Your task to perform on an android device: remove spam from my inbox in the gmail app Image 0: 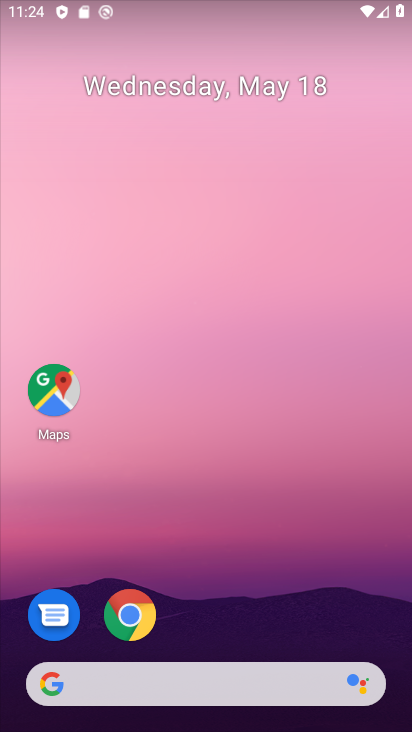
Step 0: press home button
Your task to perform on an android device: remove spam from my inbox in the gmail app Image 1: 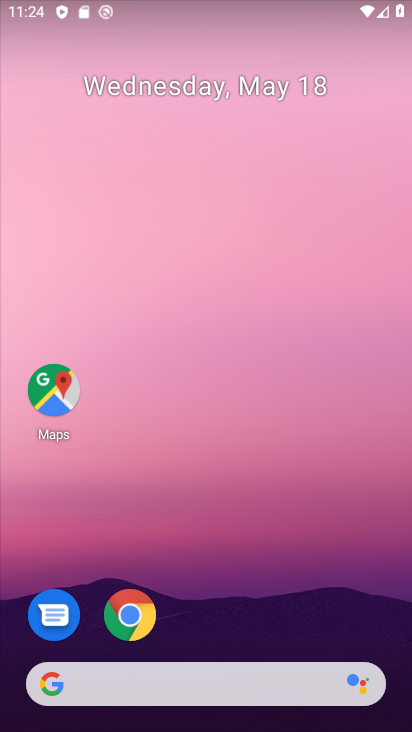
Step 1: drag from (103, 434) to (294, 184)
Your task to perform on an android device: remove spam from my inbox in the gmail app Image 2: 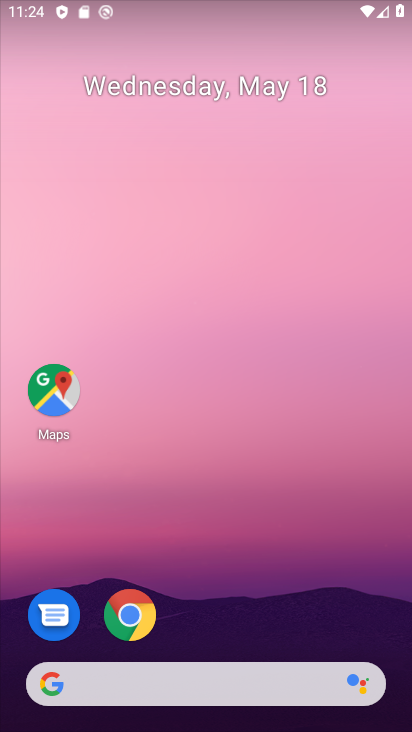
Step 2: drag from (33, 537) to (252, 9)
Your task to perform on an android device: remove spam from my inbox in the gmail app Image 3: 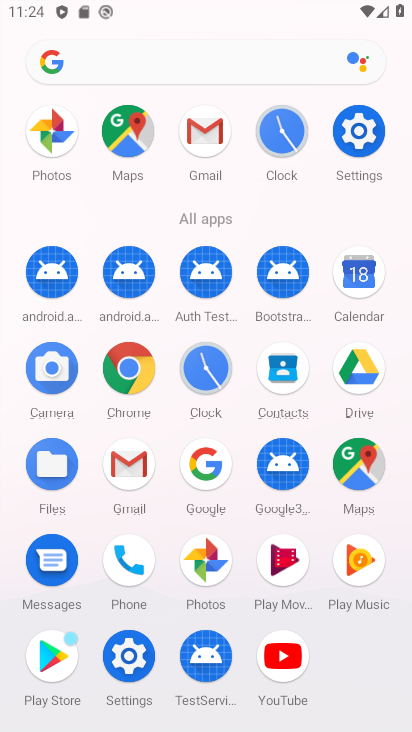
Step 3: click (210, 140)
Your task to perform on an android device: remove spam from my inbox in the gmail app Image 4: 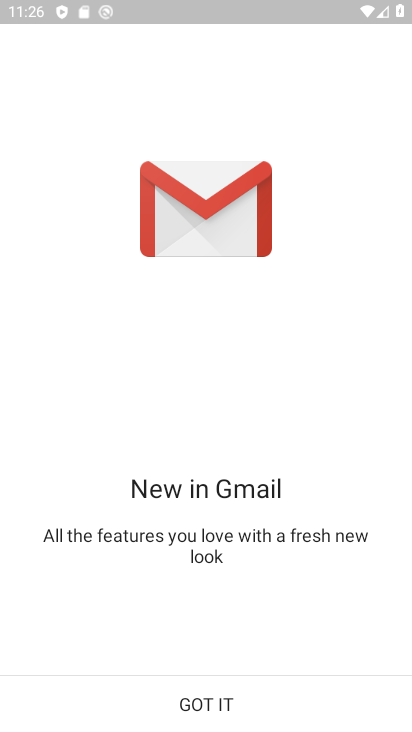
Step 4: click (268, 704)
Your task to perform on an android device: remove spam from my inbox in the gmail app Image 5: 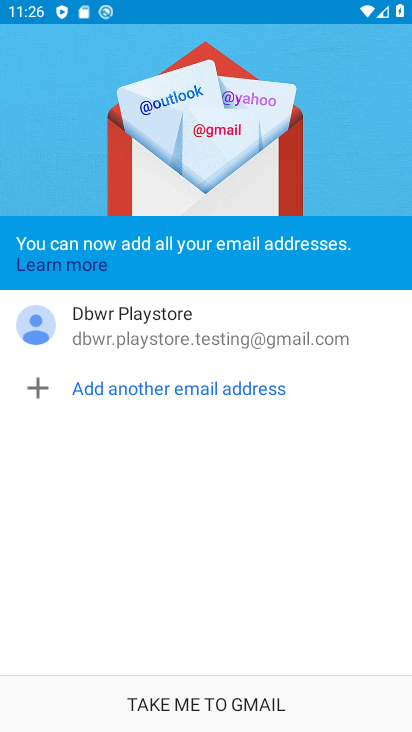
Step 5: click (218, 708)
Your task to perform on an android device: remove spam from my inbox in the gmail app Image 6: 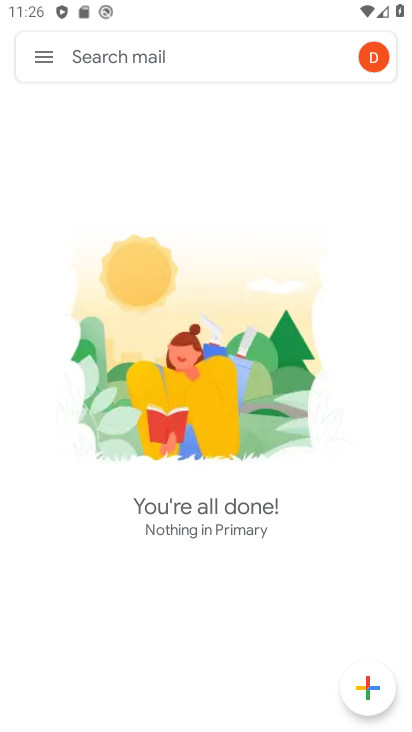
Step 6: press home button
Your task to perform on an android device: remove spam from my inbox in the gmail app Image 7: 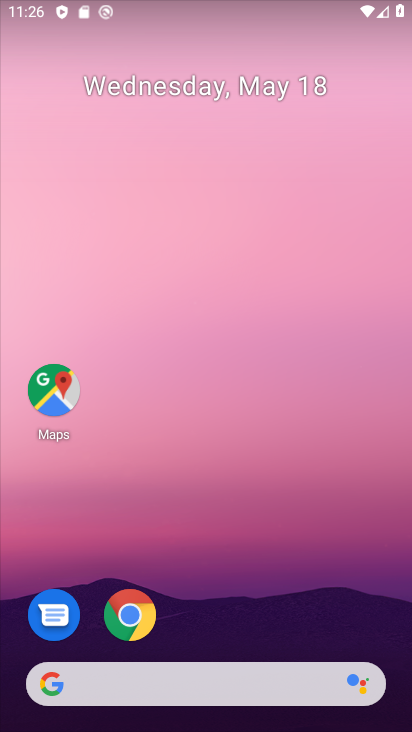
Step 7: drag from (43, 337) to (140, 188)
Your task to perform on an android device: remove spam from my inbox in the gmail app Image 8: 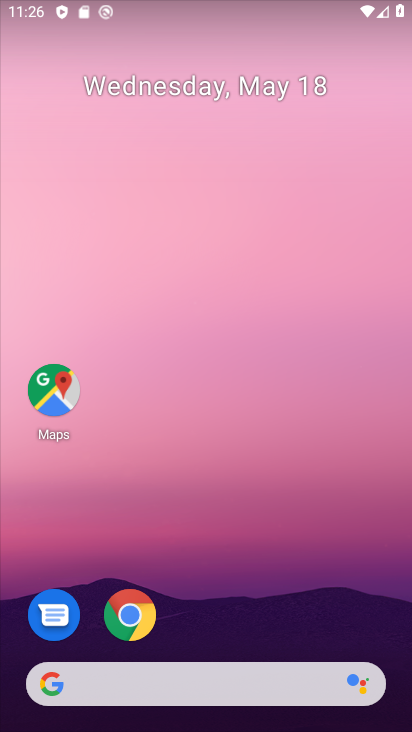
Step 8: drag from (99, 405) to (216, 229)
Your task to perform on an android device: remove spam from my inbox in the gmail app Image 9: 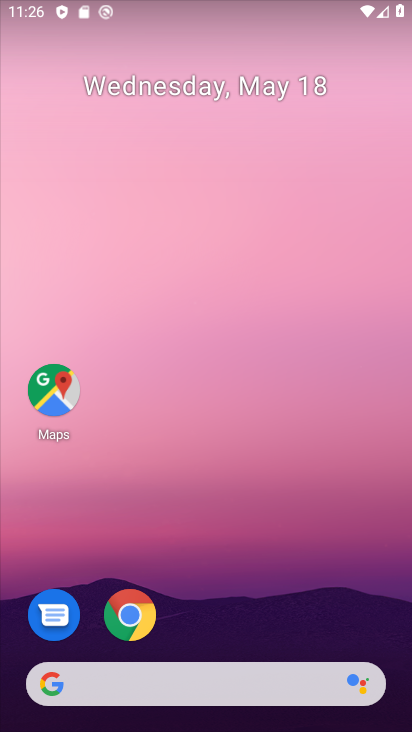
Step 9: drag from (13, 698) to (319, 213)
Your task to perform on an android device: remove spam from my inbox in the gmail app Image 10: 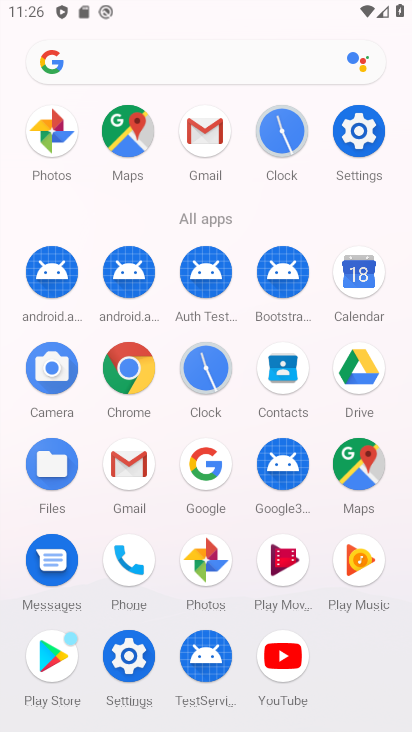
Step 10: click (120, 469)
Your task to perform on an android device: remove spam from my inbox in the gmail app Image 11: 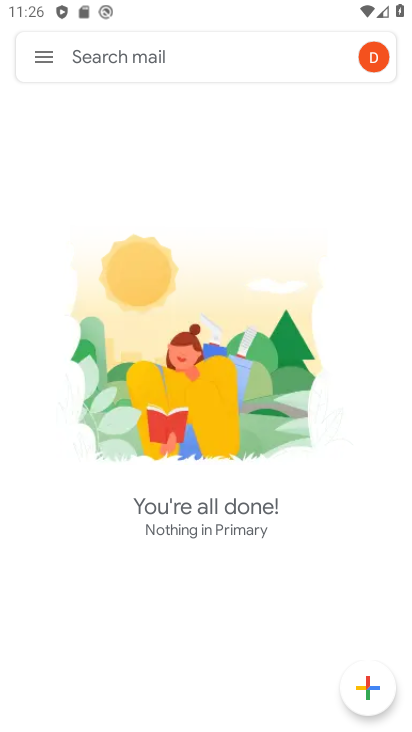
Step 11: click (54, 60)
Your task to perform on an android device: remove spam from my inbox in the gmail app Image 12: 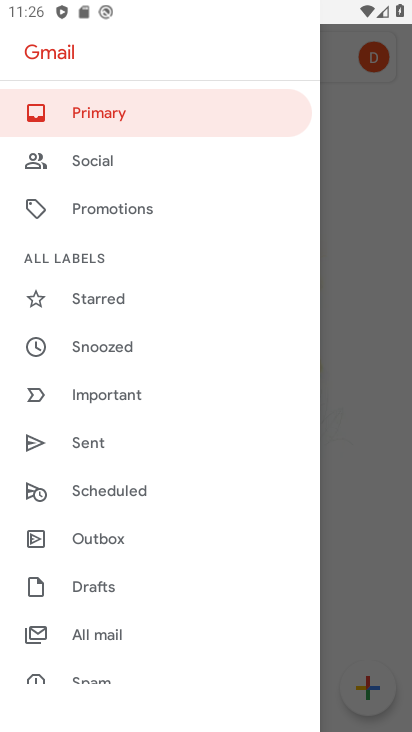
Step 12: drag from (1, 659) to (170, 240)
Your task to perform on an android device: remove spam from my inbox in the gmail app Image 13: 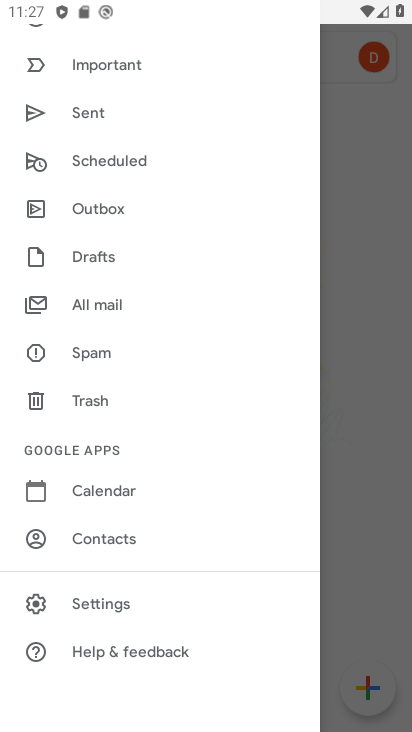
Step 13: click (87, 345)
Your task to perform on an android device: remove spam from my inbox in the gmail app Image 14: 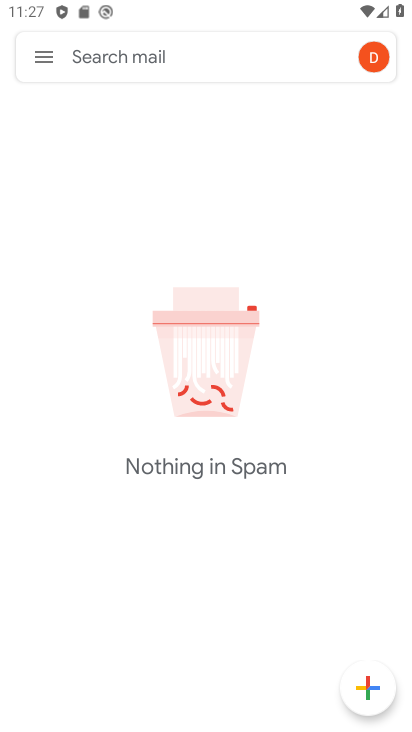
Step 14: task complete